Your task to perform on an android device: Open Android settings Image 0: 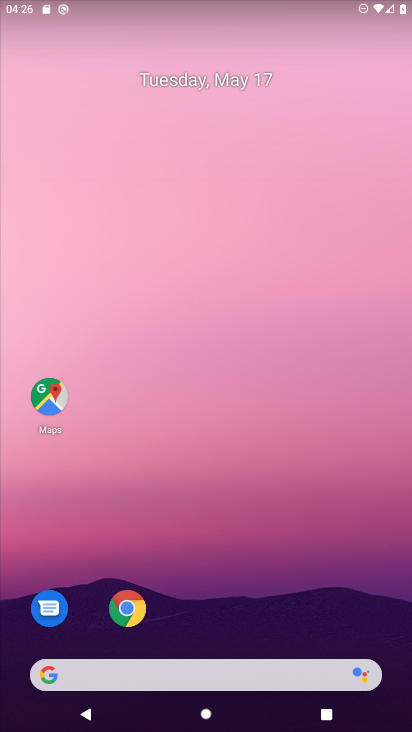
Step 0: drag from (185, 656) to (261, 321)
Your task to perform on an android device: Open Android settings Image 1: 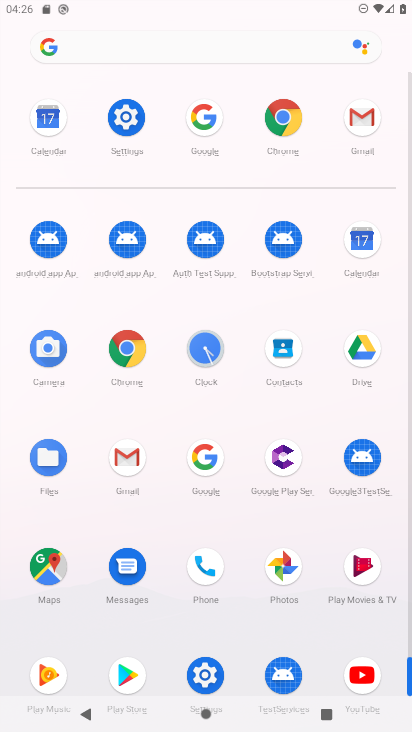
Step 1: click (129, 110)
Your task to perform on an android device: Open Android settings Image 2: 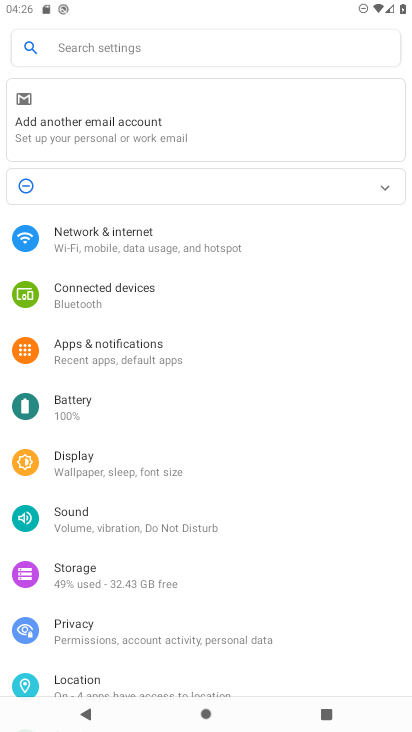
Step 2: task complete